Your task to perform on an android device: Go to eBay Image 0: 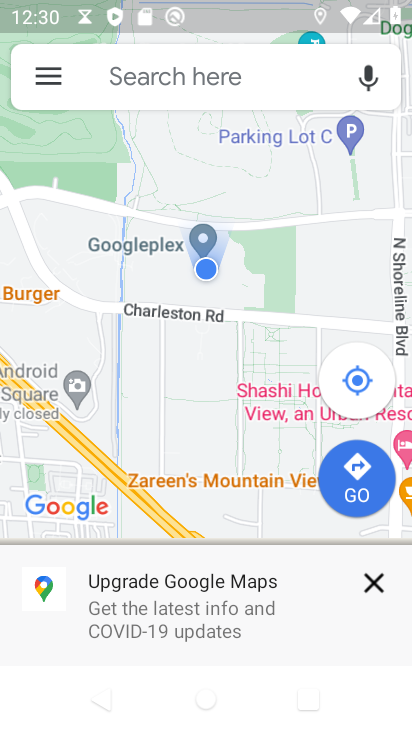
Step 0: press home button
Your task to perform on an android device: Go to eBay Image 1: 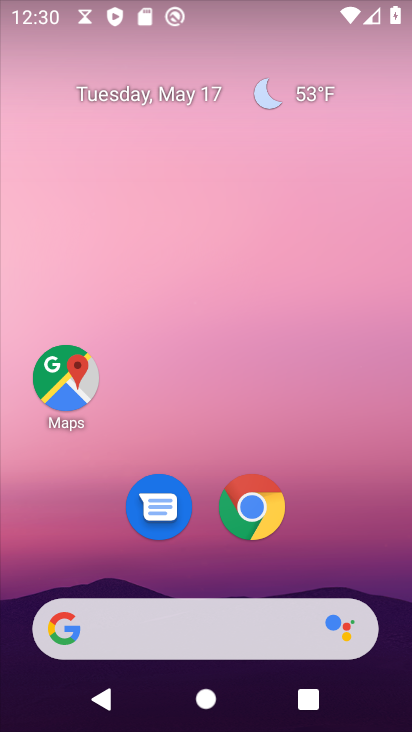
Step 1: click (255, 506)
Your task to perform on an android device: Go to eBay Image 2: 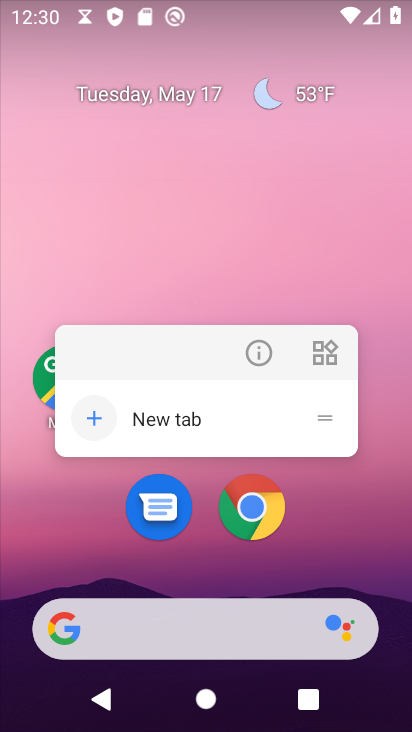
Step 2: click (255, 506)
Your task to perform on an android device: Go to eBay Image 3: 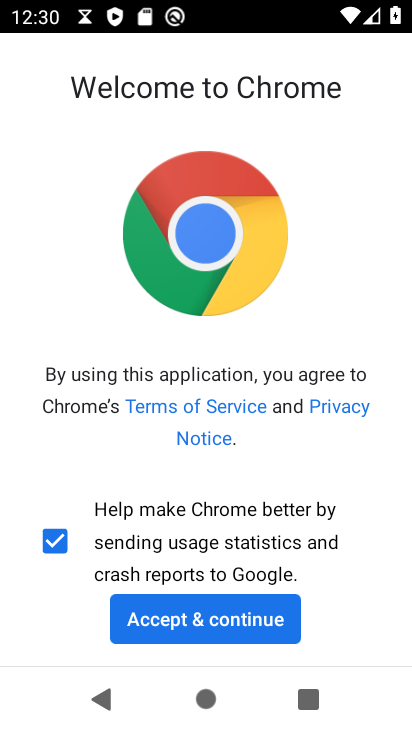
Step 3: click (191, 624)
Your task to perform on an android device: Go to eBay Image 4: 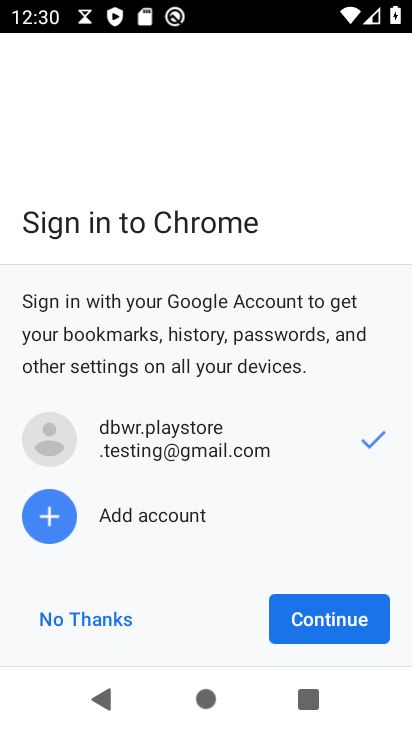
Step 4: click (305, 613)
Your task to perform on an android device: Go to eBay Image 5: 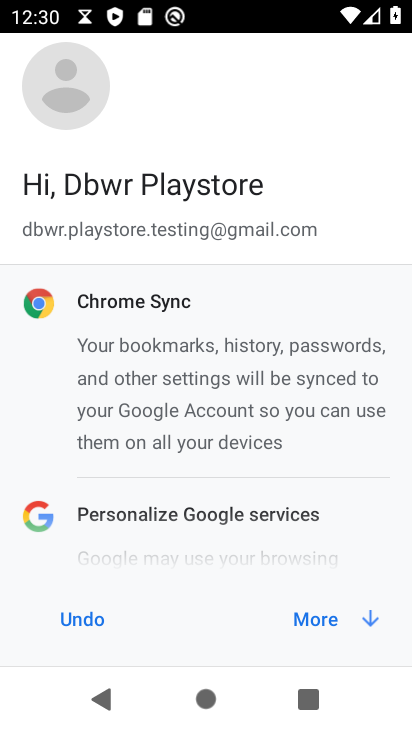
Step 5: click (327, 623)
Your task to perform on an android device: Go to eBay Image 6: 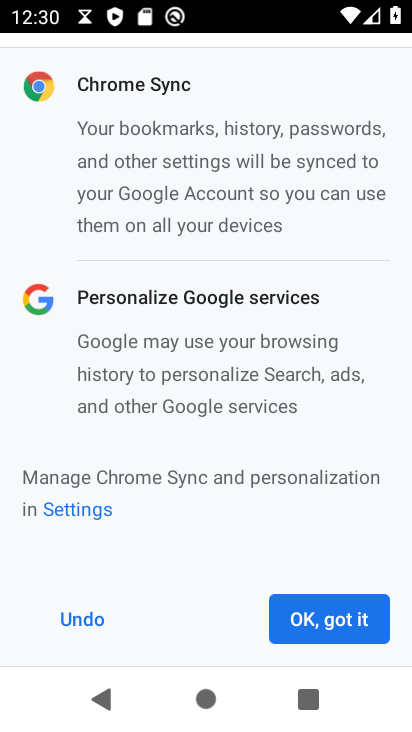
Step 6: click (327, 623)
Your task to perform on an android device: Go to eBay Image 7: 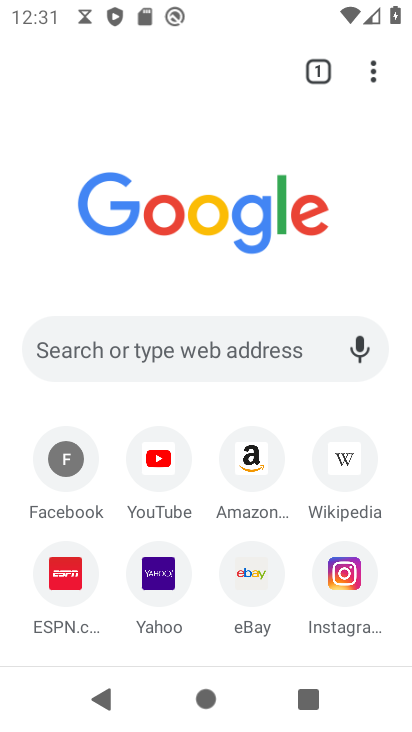
Step 7: click (180, 352)
Your task to perform on an android device: Go to eBay Image 8: 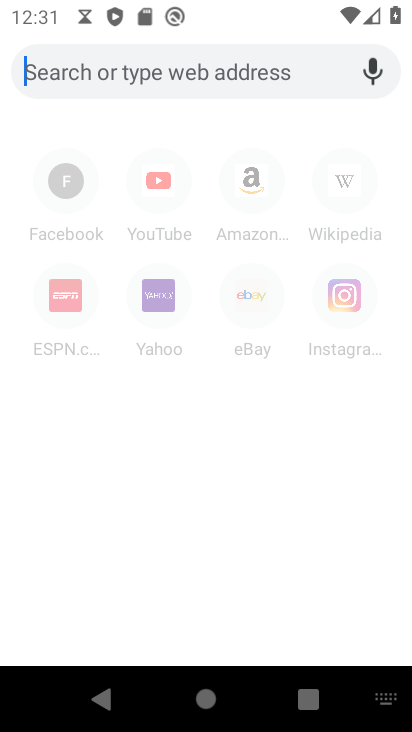
Step 8: type "ebay"
Your task to perform on an android device: Go to eBay Image 9: 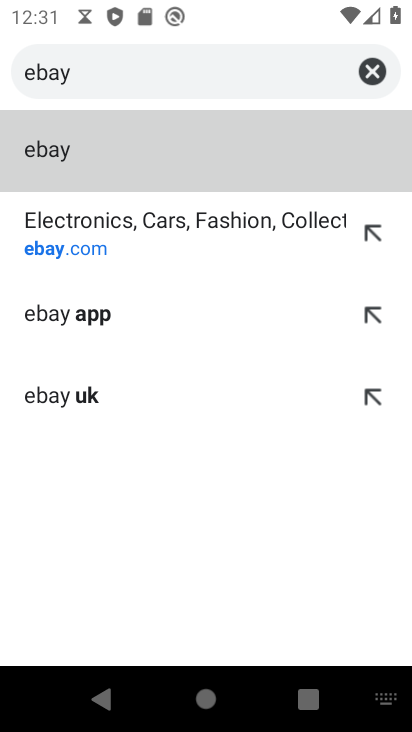
Step 9: click (26, 154)
Your task to perform on an android device: Go to eBay Image 10: 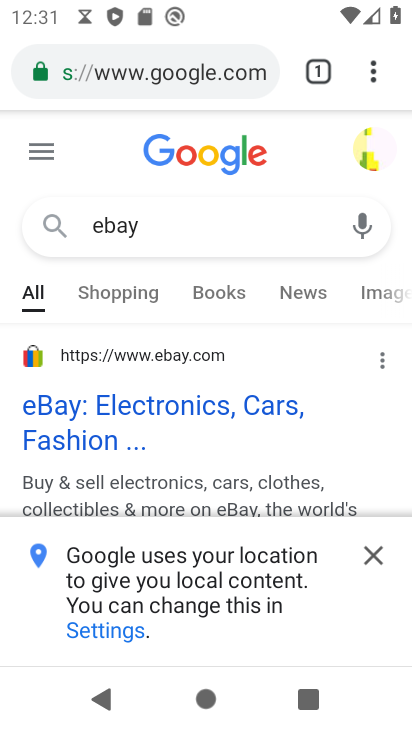
Step 10: click (109, 407)
Your task to perform on an android device: Go to eBay Image 11: 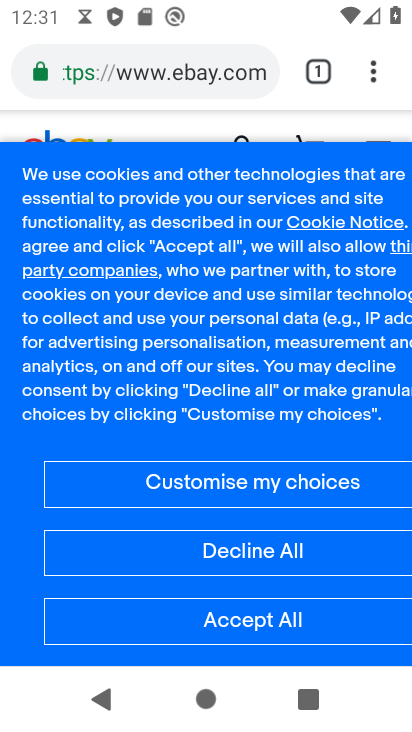
Step 11: task complete